Your task to perform on an android device: change your default location settings in chrome Image 0: 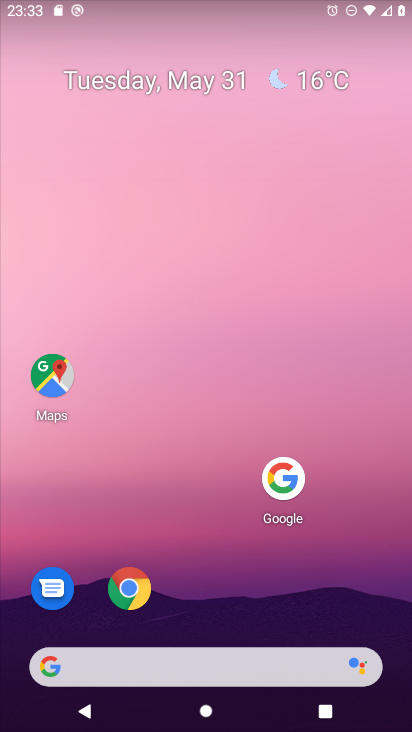
Step 0: click (137, 593)
Your task to perform on an android device: change your default location settings in chrome Image 1: 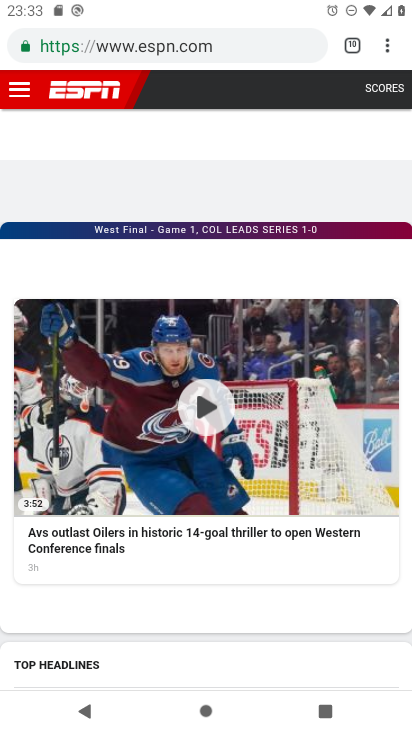
Step 1: drag from (386, 51) to (298, 549)
Your task to perform on an android device: change your default location settings in chrome Image 2: 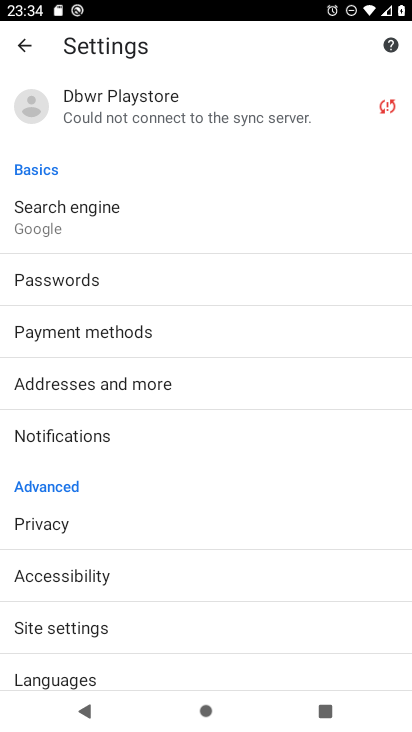
Step 2: click (80, 221)
Your task to perform on an android device: change your default location settings in chrome Image 3: 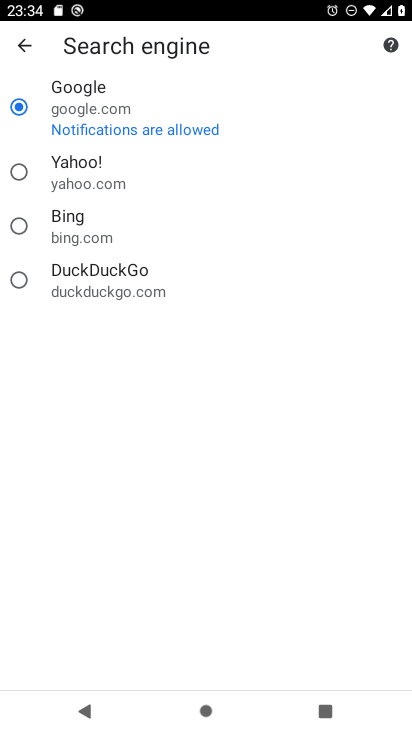
Step 3: click (21, 170)
Your task to perform on an android device: change your default location settings in chrome Image 4: 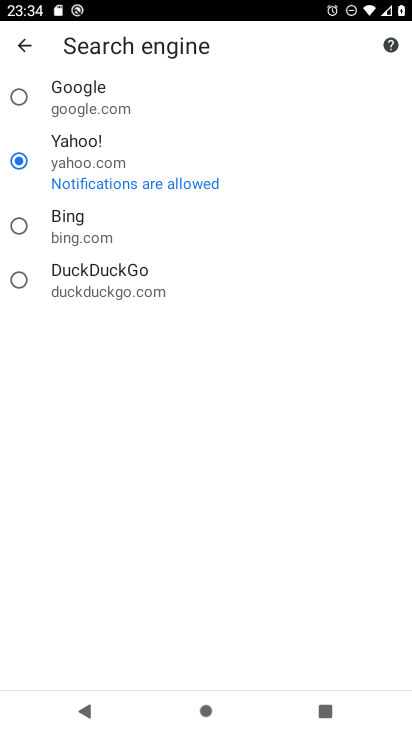
Step 4: task complete